Your task to perform on an android device: change notification settings in the gmail app Image 0: 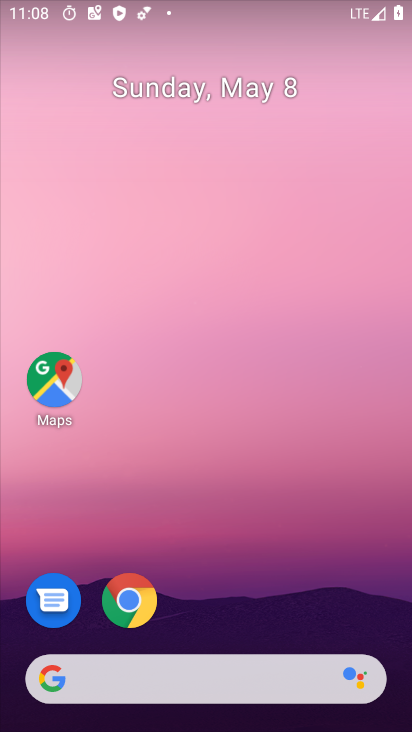
Step 0: drag from (19, 570) to (205, 232)
Your task to perform on an android device: change notification settings in the gmail app Image 1: 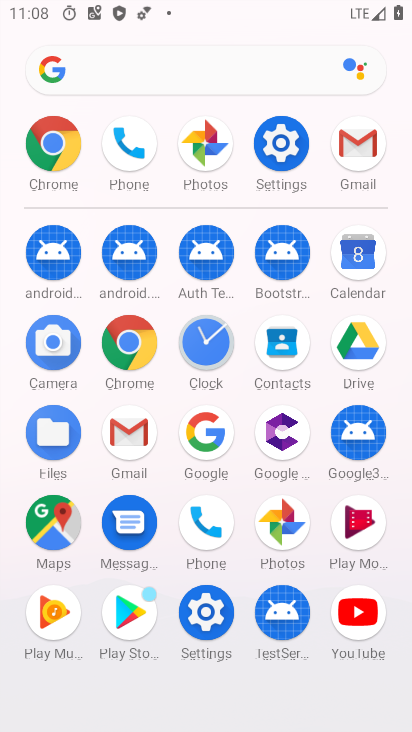
Step 1: click (369, 141)
Your task to perform on an android device: change notification settings in the gmail app Image 2: 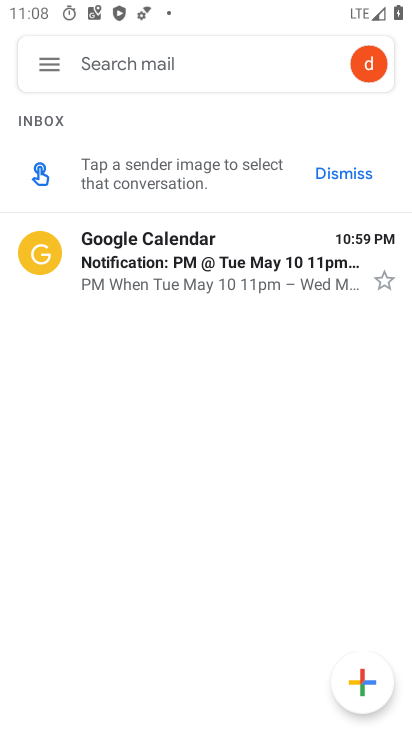
Step 2: click (54, 60)
Your task to perform on an android device: change notification settings in the gmail app Image 3: 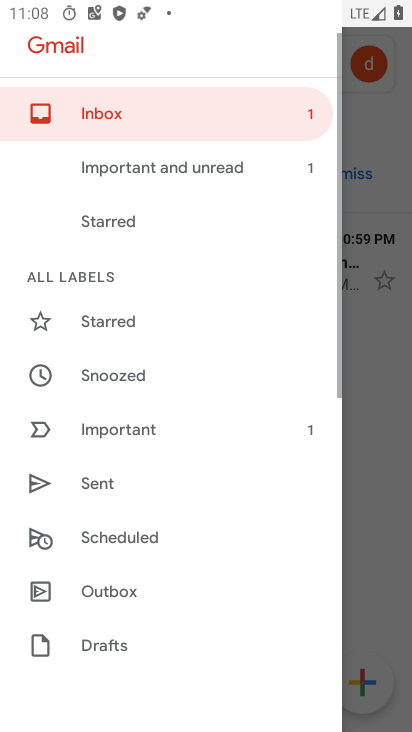
Step 3: drag from (144, 619) to (252, 137)
Your task to perform on an android device: change notification settings in the gmail app Image 4: 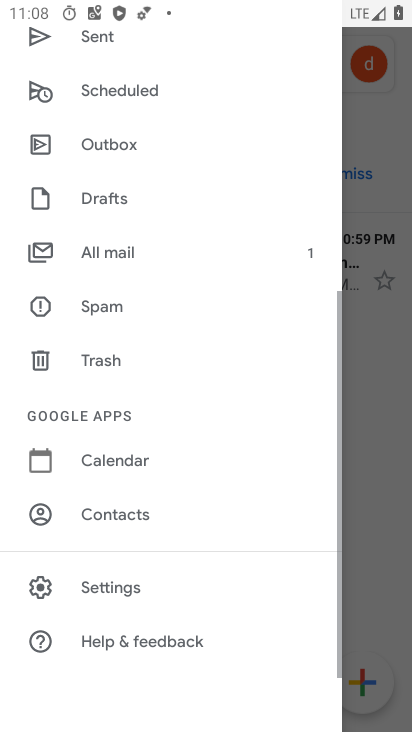
Step 4: click (105, 597)
Your task to perform on an android device: change notification settings in the gmail app Image 5: 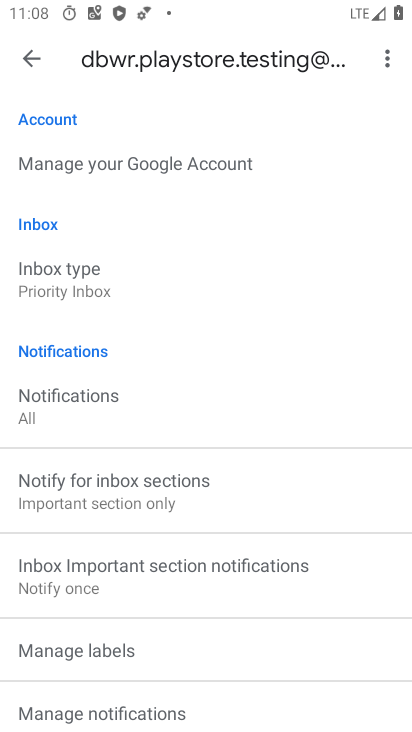
Step 5: click (99, 416)
Your task to perform on an android device: change notification settings in the gmail app Image 6: 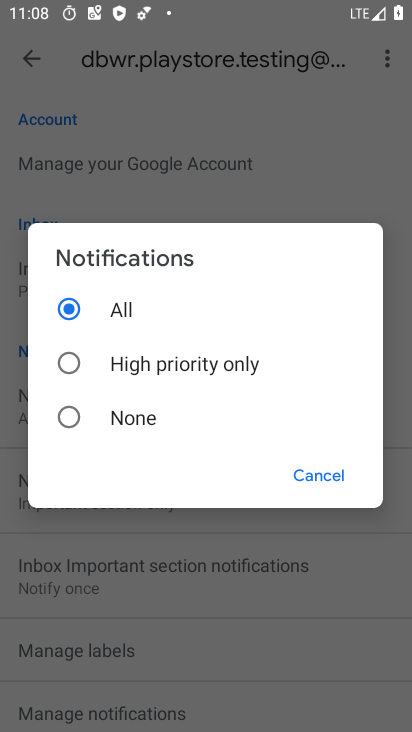
Step 6: click (196, 370)
Your task to perform on an android device: change notification settings in the gmail app Image 7: 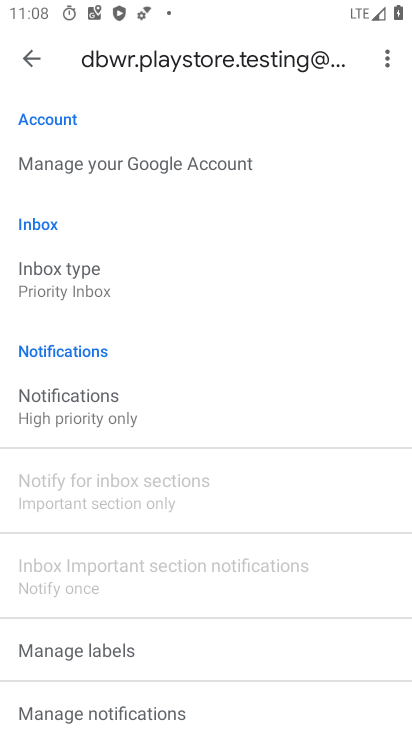
Step 7: task complete